Your task to perform on an android device: Open maps Image 0: 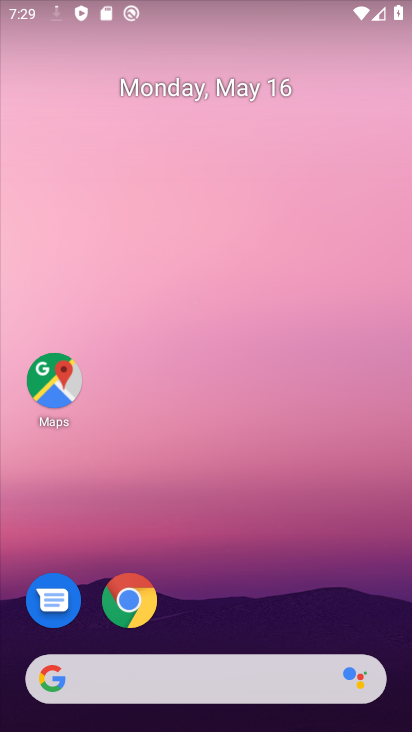
Step 0: click (47, 382)
Your task to perform on an android device: Open maps Image 1: 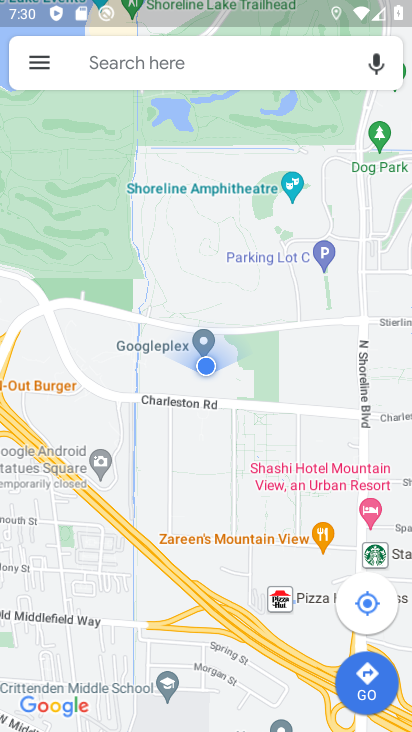
Step 1: task complete